Your task to perform on an android device: What's on my calendar today? Image 0: 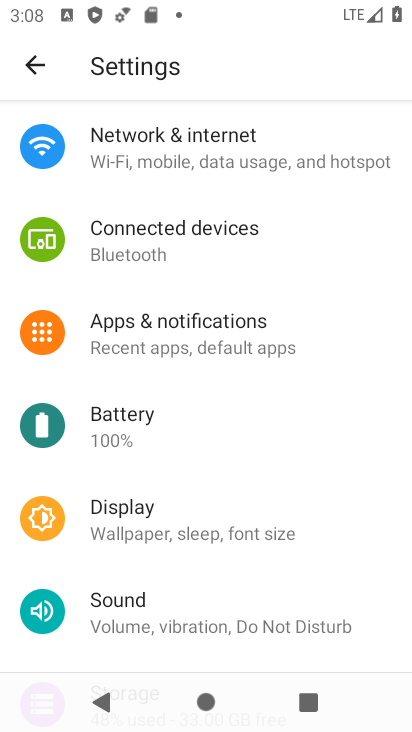
Step 0: press home button
Your task to perform on an android device: What's on my calendar today? Image 1: 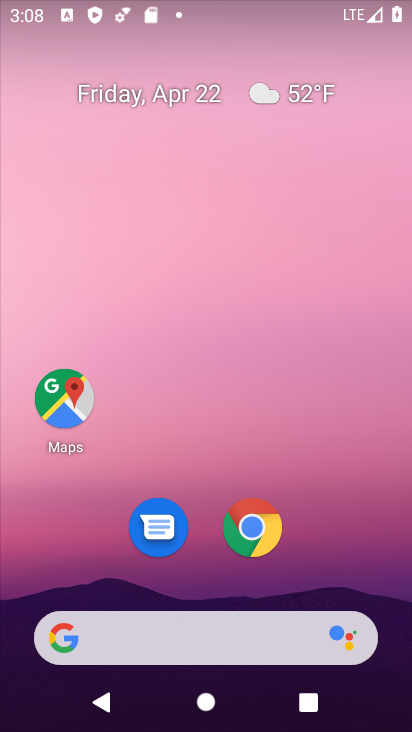
Step 1: drag from (393, 478) to (401, 44)
Your task to perform on an android device: What's on my calendar today? Image 2: 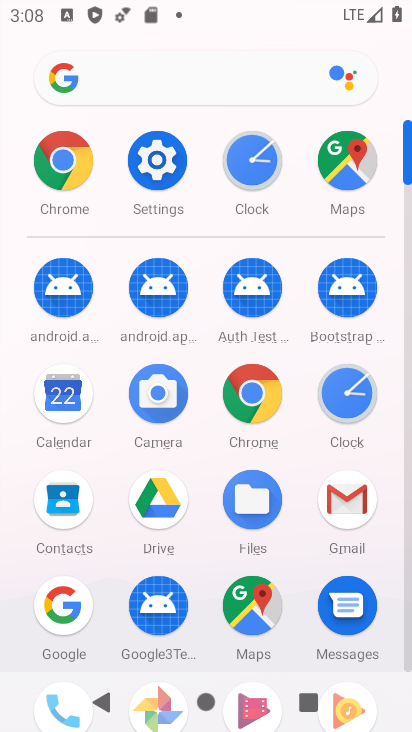
Step 2: click (77, 407)
Your task to perform on an android device: What's on my calendar today? Image 3: 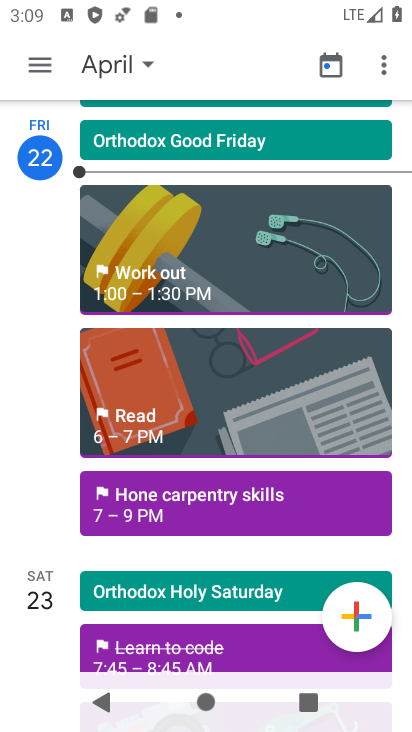
Step 3: click (131, 62)
Your task to perform on an android device: What's on my calendar today? Image 4: 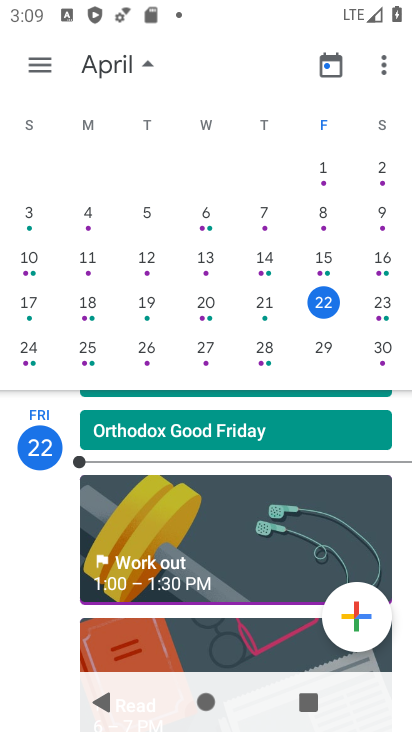
Step 4: click (336, 306)
Your task to perform on an android device: What's on my calendar today? Image 5: 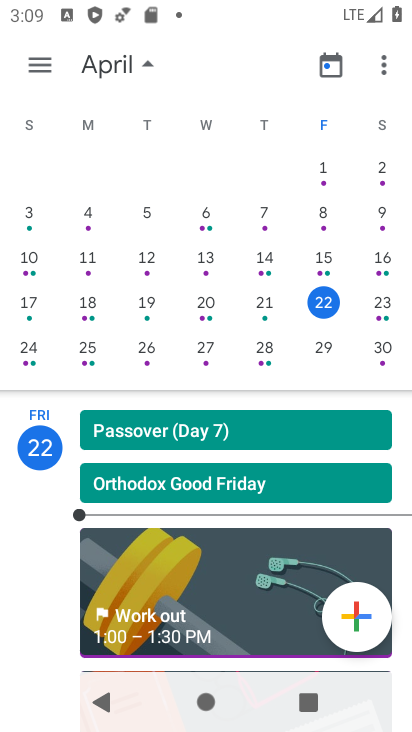
Step 5: task complete